Your task to perform on an android device: Go to eBay Image 0: 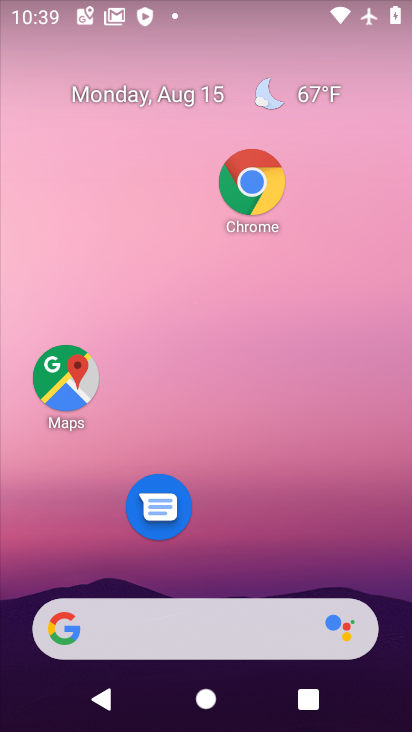
Step 0: drag from (240, 576) to (232, 5)
Your task to perform on an android device: Go to eBay Image 1: 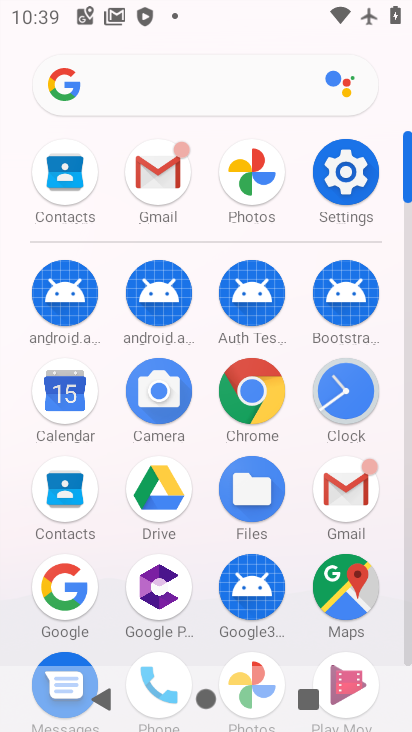
Step 1: click (311, 179)
Your task to perform on an android device: Go to eBay Image 2: 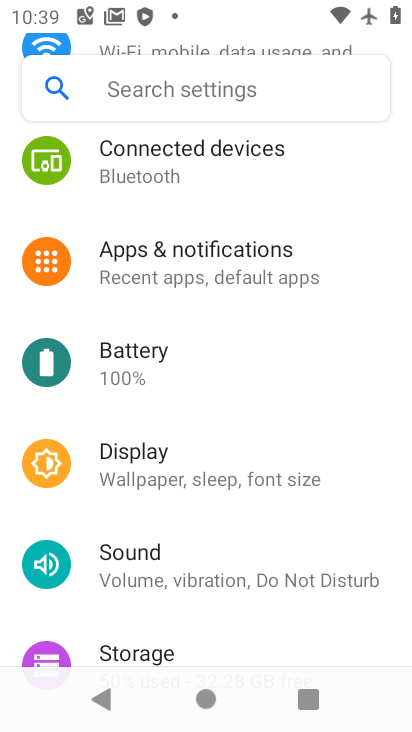
Step 2: press home button
Your task to perform on an android device: Go to eBay Image 3: 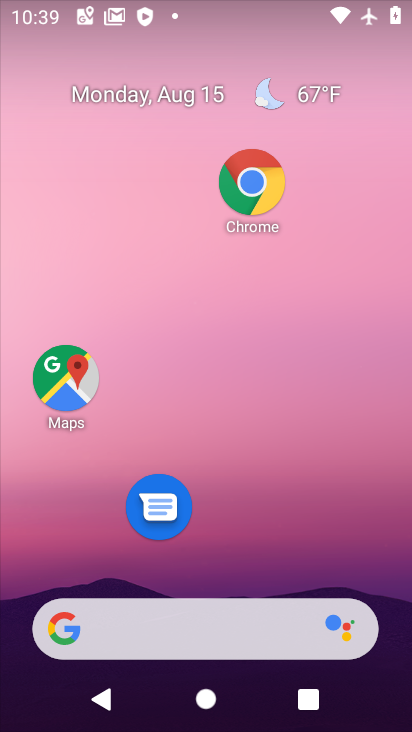
Step 3: click (250, 208)
Your task to perform on an android device: Go to eBay Image 4: 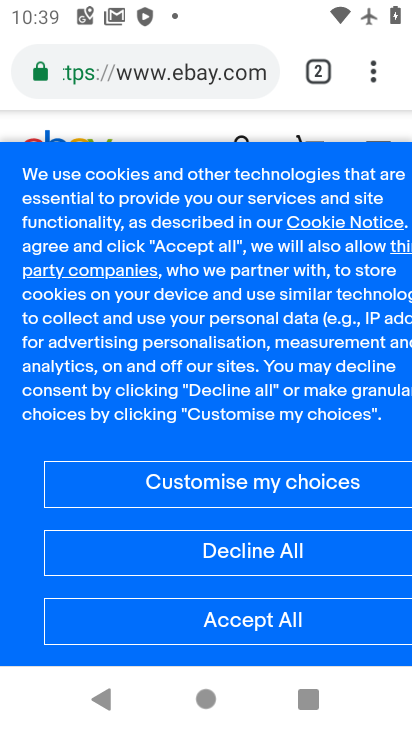
Step 4: click (243, 75)
Your task to perform on an android device: Go to eBay Image 5: 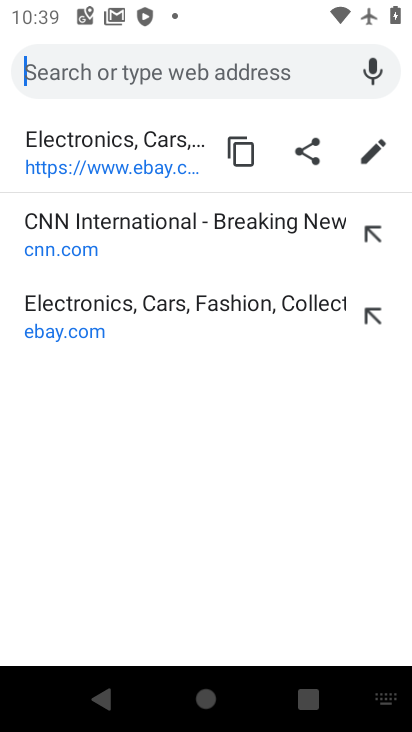
Step 5: click (120, 154)
Your task to perform on an android device: Go to eBay Image 6: 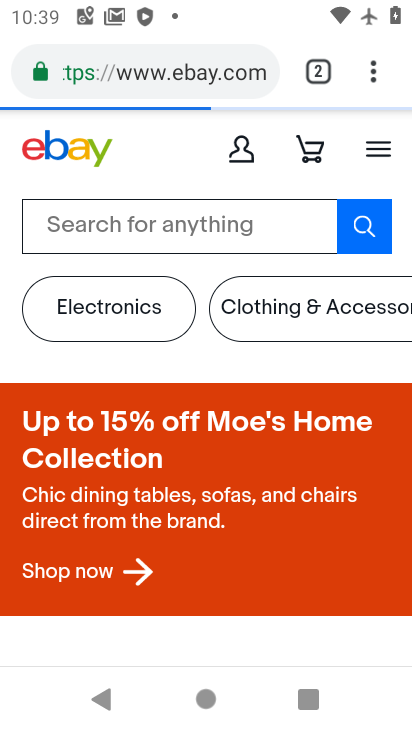
Step 6: task complete